Your task to perform on an android device: Search for vegetarian restaurants on Maps Image 0: 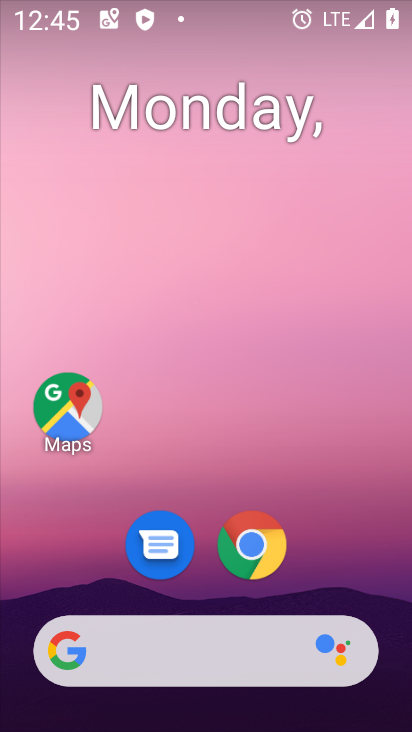
Step 0: drag from (369, 599) to (382, 254)
Your task to perform on an android device: Search for vegetarian restaurants on Maps Image 1: 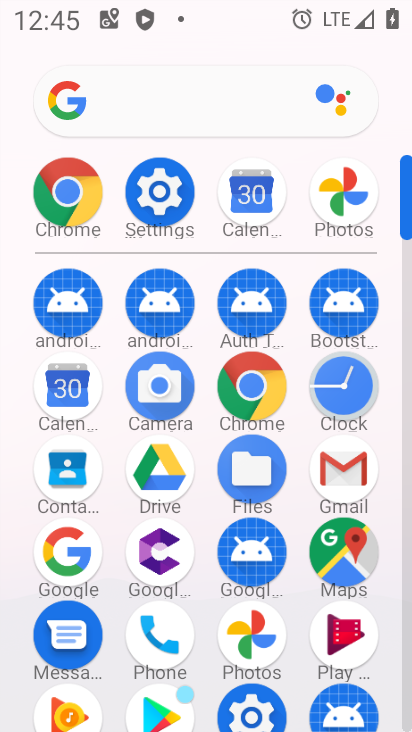
Step 1: click (361, 556)
Your task to perform on an android device: Search for vegetarian restaurants on Maps Image 2: 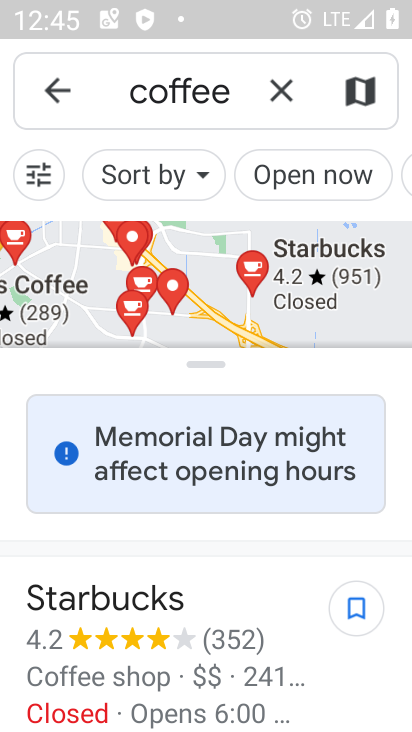
Step 2: click (265, 98)
Your task to perform on an android device: Search for vegetarian restaurants on Maps Image 3: 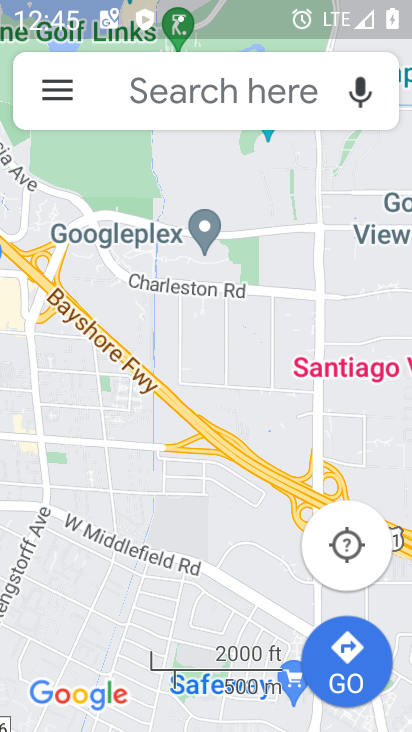
Step 3: click (237, 101)
Your task to perform on an android device: Search for vegetarian restaurants on Maps Image 4: 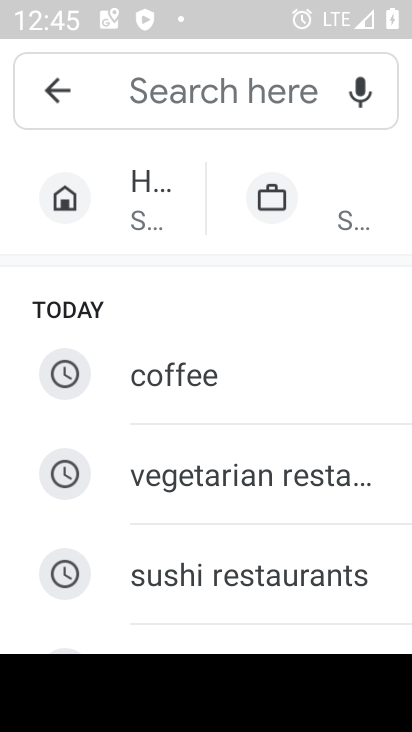
Step 4: type "vegetrain restaurants"
Your task to perform on an android device: Search for vegetarian restaurants on Maps Image 5: 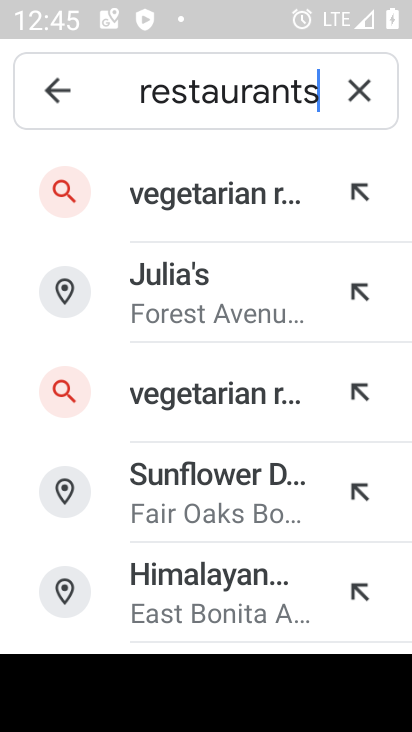
Step 5: click (231, 196)
Your task to perform on an android device: Search for vegetarian restaurants on Maps Image 6: 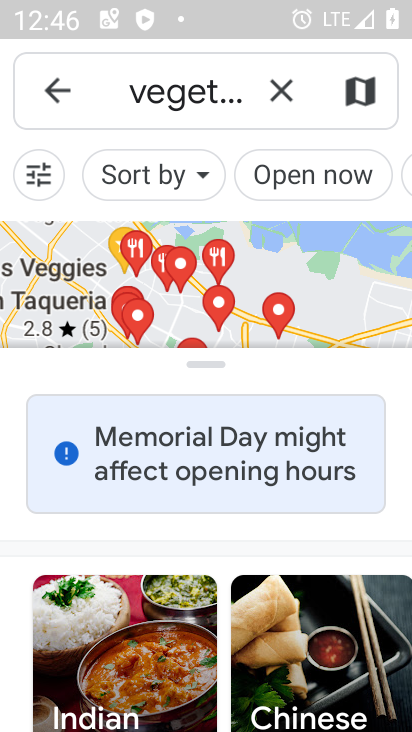
Step 6: task complete